Your task to perform on an android device: Clear the cart on walmart.com. Search for "razer huntsman" on walmart.com, select the first entry, add it to the cart, then select checkout. Image 0: 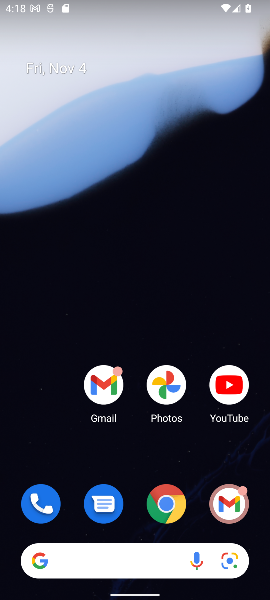
Step 0: click (164, 504)
Your task to perform on an android device: Clear the cart on walmart.com. Search for "razer huntsman" on walmart.com, select the first entry, add it to the cart, then select checkout. Image 1: 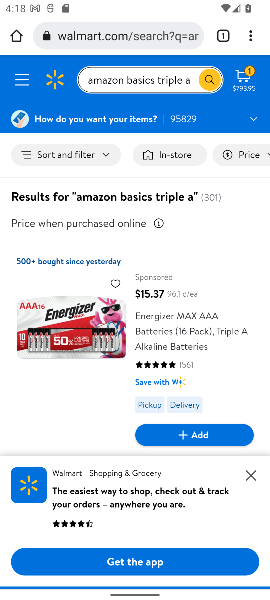
Step 1: click (239, 74)
Your task to perform on an android device: Clear the cart on walmart.com. Search for "razer huntsman" on walmart.com, select the first entry, add it to the cart, then select checkout. Image 2: 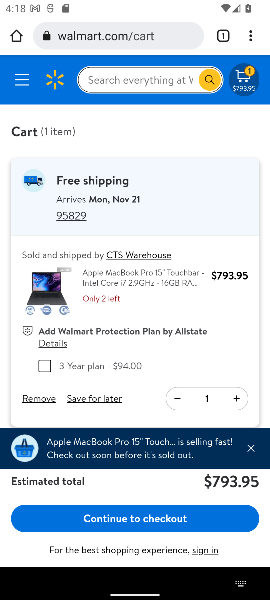
Step 2: click (38, 401)
Your task to perform on an android device: Clear the cart on walmart.com. Search for "razer huntsman" on walmart.com, select the first entry, add it to the cart, then select checkout. Image 3: 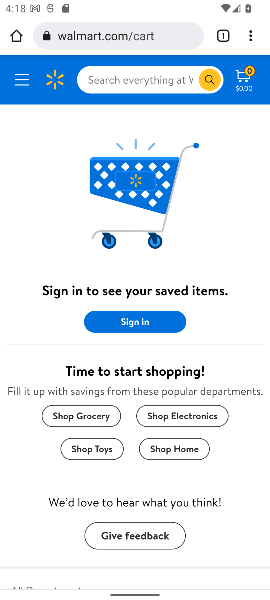
Step 3: click (107, 86)
Your task to perform on an android device: Clear the cart on walmart.com. Search for "razer huntsman" on walmart.com, select the first entry, add it to the cart, then select checkout. Image 4: 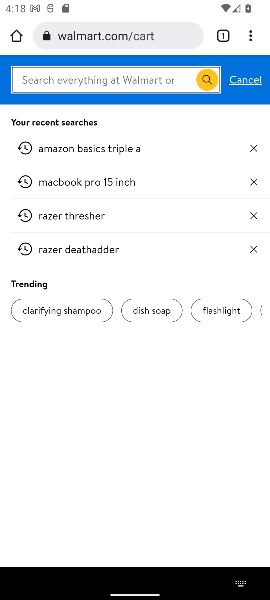
Step 4: type "razer huntsman"
Your task to perform on an android device: Clear the cart on walmart.com. Search for "razer huntsman" on walmart.com, select the first entry, add it to the cart, then select checkout. Image 5: 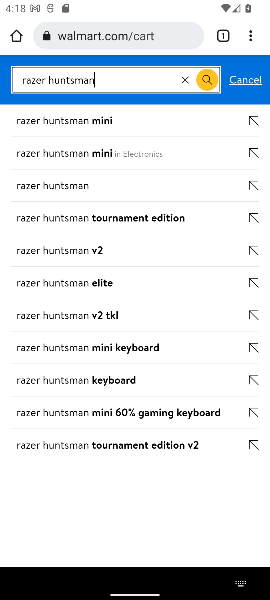
Step 5: click (25, 188)
Your task to perform on an android device: Clear the cart on walmart.com. Search for "razer huntsman" on walmart.com, select the first entry, add it to the cart, then select checkout. Image 6: 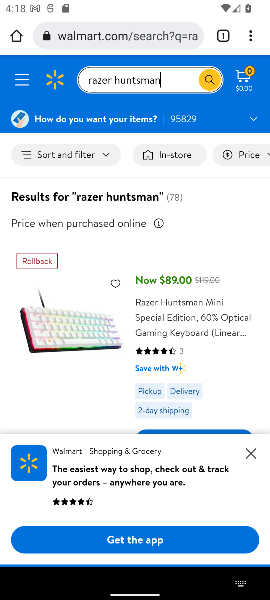
Step 6: click (112, 382)
Your task to perform on an android device: Clear the cart on walmart.com. Search for "razer huntsman" on walmart.com, select the first entry, add it to the cart, then select checkout. Image 7: 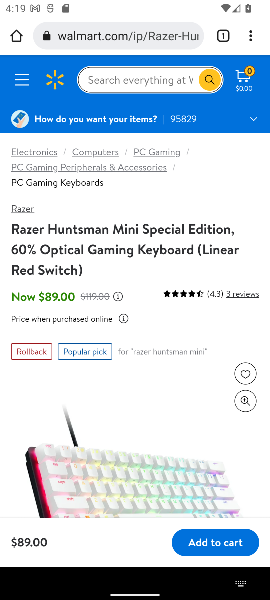
Step 7: click (209, 549)
Your task to perform on an android device: Clear the cart on walmart.com. Search for "razer huntsman" on walmart.com, select the first entry, add it to the cart, then select checkout. Image 8: 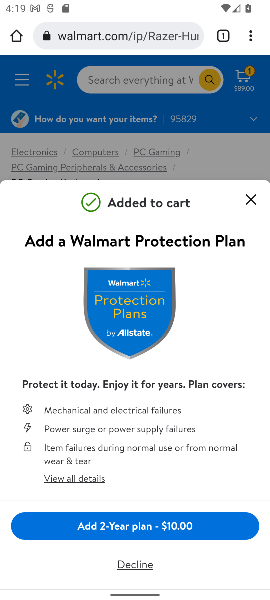
Step 8: click (248, 202)
Your task to perform on an android device: Clear the cart on walmart.com. Search for "razer huntsman" on walmart.com, select the first entry, add it to the cart, then select checkout. Image 9: 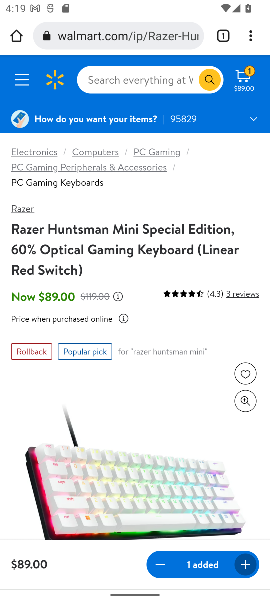
Step 9: click (237, 76)
Your task to perform on an android device: Clear the cart on walmart.com. Search for "razer huntsman" on walmart.com, select the first entry, add it to the cart, then select checkout. Image 10: 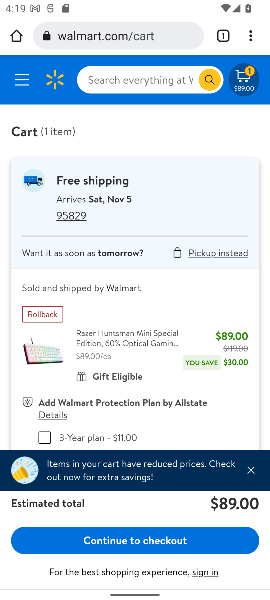
Step 10: click (129, 542)
Your task to perform on an android device: Clear the cart on walmart.com. Search for "razer huntsman" on walmart.com, select the first entry, add it to the cart, then select checkout. Image 11: 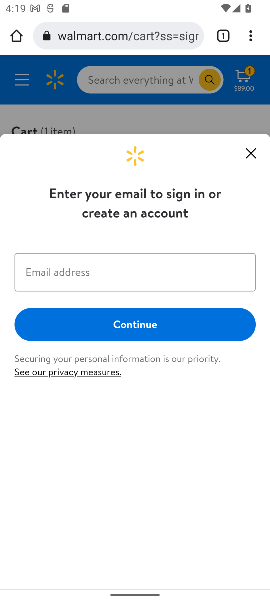
Step 11: task complete